Your task to perform on an android device: check data usage Image 0: 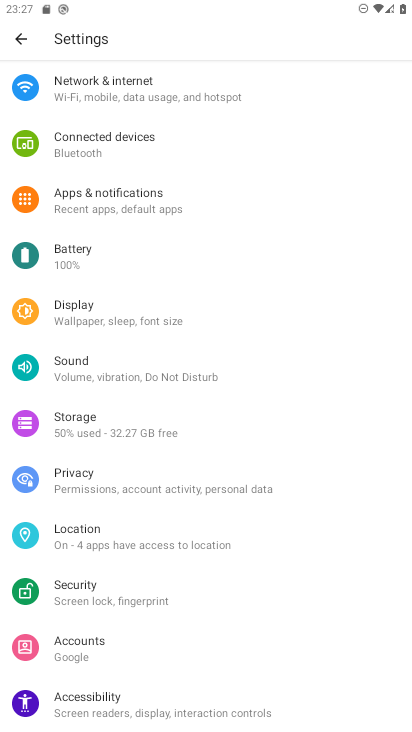
Step 0: click (83, 76)
Your task to perform on an android device: check data usage Image 1: 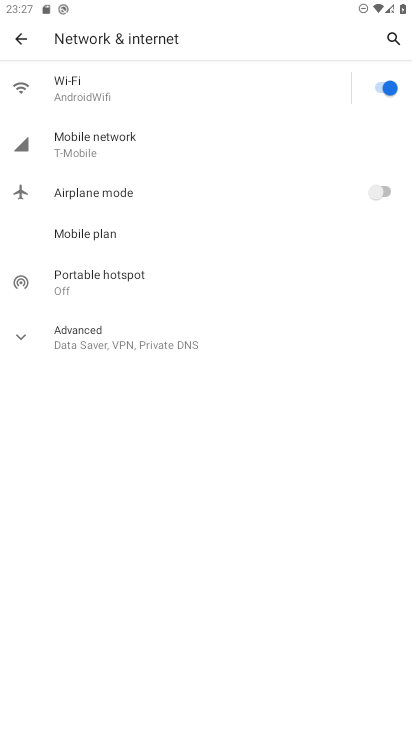
Step 1: click (85, 141)
Your task to perform on an android device: check data usage Image 2: 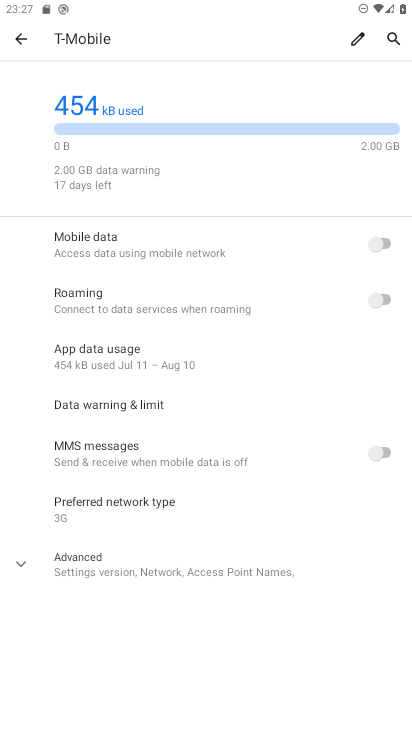
Step 2: click (20, 564)
Your task to perform on an android device: check data usage Image 3: 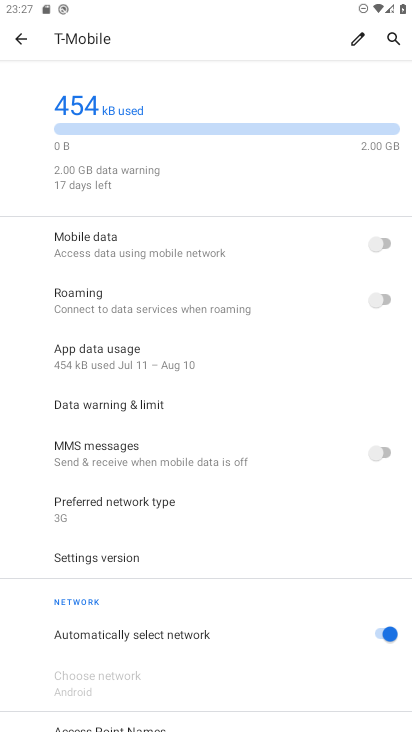
Step 3: task complete